Your task to perform on an android device: open app "Venmo" (install if not already installed) and enter user name: "bleedings@gmail.com" and password: "copied" Image 0: 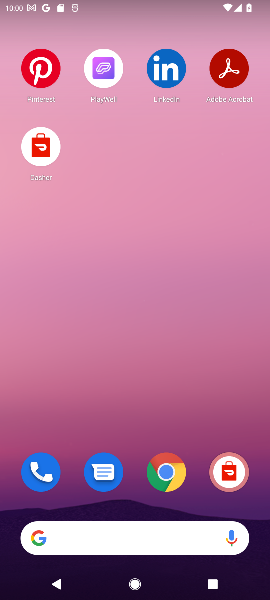
Step 0: drag from (171, 436) to (134, 136)
Your task to perform on an android device: open app "Venmo" (install if not already installed) and enter user name: "bleedings@gmail.com" and password: "copied" Image 1: 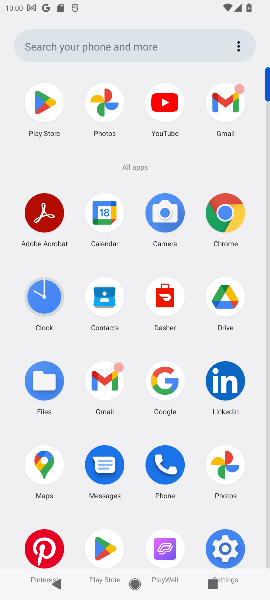
Step 1: click (100, 536)
Your task to perform on an android device: open app "Venmo" (install if not already installed) and enter user name: "bleedings@gmail.com" and password: "copied" Image 2: 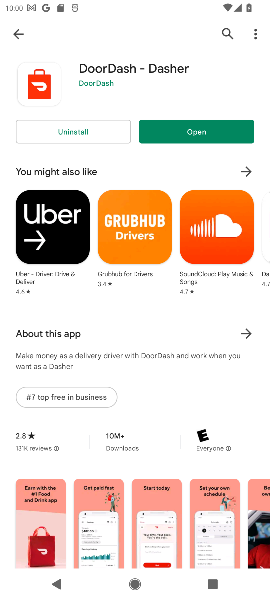
Step 2: click (221, 28)
Your task to perform on an android device: open app "Venmo" (install if not already installed) and enter user name: "bleedings@gmail.com" and password: "copied" Image 3: 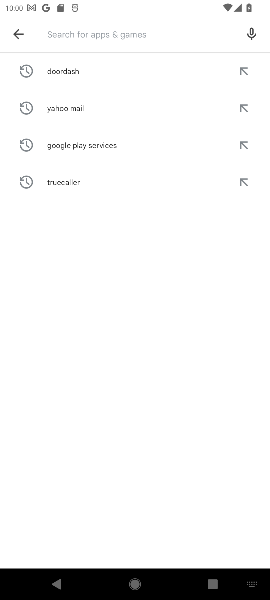
Step 3: type "venmo"
Your task to perform on an android device: open app "Venmo" (install if not already installed) and enter user name: "bleedings@gmail.com" and password: "copied" Image 4: 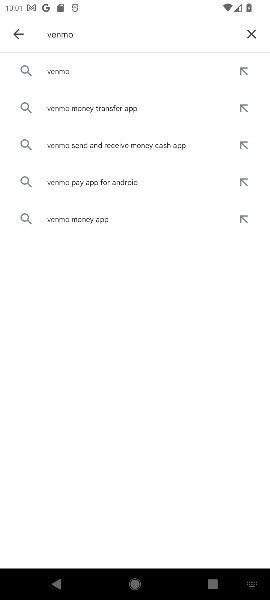
Step 4: click (75, 69)
Your task to perform on an android device: open app "Venmo" (install if not already installed) and enter user name: "bleedings@gmail.com" and password: "copied" Image 5: 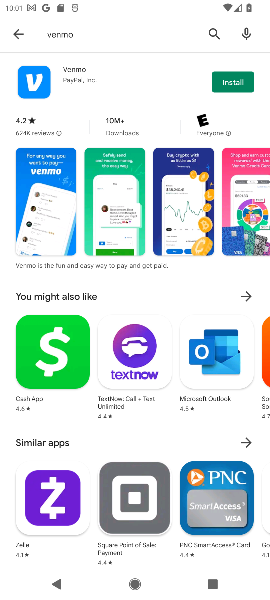
Step 5: click (244, 85)
Your task to perform on an android device: open app "Venmo" (install if not already installed) and enter user name: "bleedings@gmail.com" and password: "copied" Image 6: 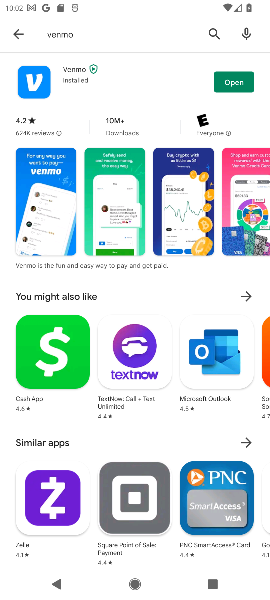
Step 6: click (221, 76)
Your task to perform on an android device: open app "Venmo" (install if not already installed) and enter user name: "bleedings@gmail.com" and password: "copied" Image 7: 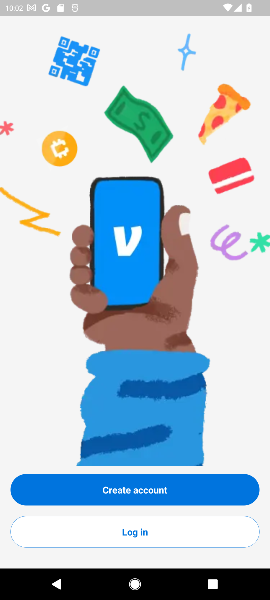
Step 7: click (174, 535)
Your task to perform on an android device: open app "Venmo" (install if not already installed) and enter user name: "bleedings@gmail.com" and password: "copied" Image 8: 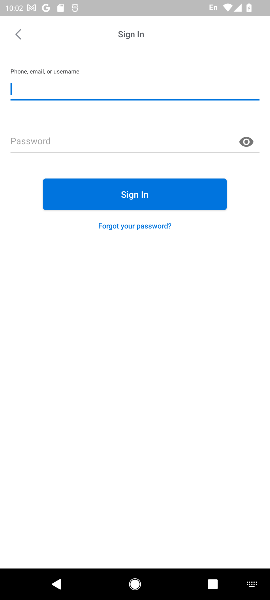
Step 8: type "bleedings@gmail.com"
Your task to perform on an android device: open app "Venmo" (install if not already installed) and enter user name: "bleedings@gmail.com" and password: "copied" Image 9: 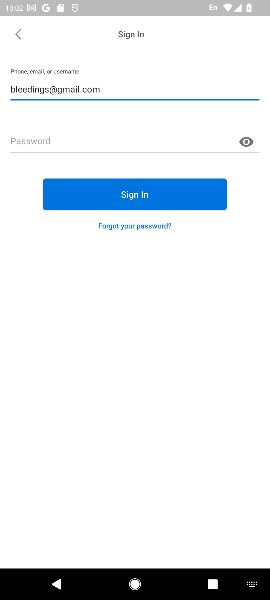
Step 9: click (183, 140)
Your task to perform on an android device: open app "Venmo" (install if not already installed) and enter user name: "bleedings@gmail.com" and password: "copied" Image 10: 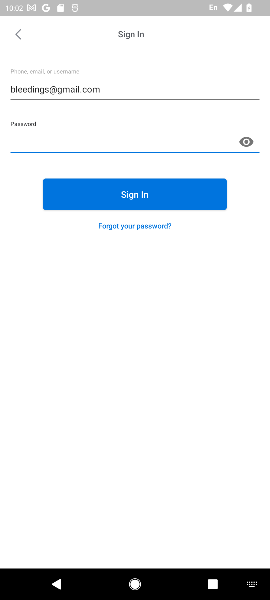
Step 10: type "copied"
Your task to perform on an android device: open app "Venmo" (install if not already installed) and enter user name: "bleedings@gmail.com" and password: "copied" Image 11: 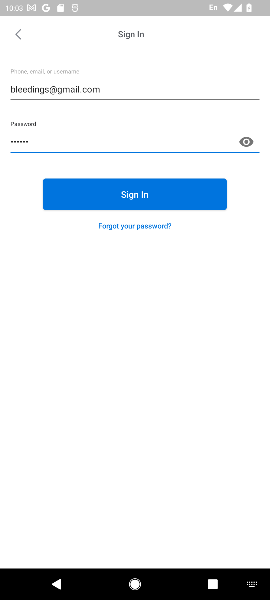
Step 11: task complete